Your task to perform on an android device: move an email to a new category in the gmail app Image 0: 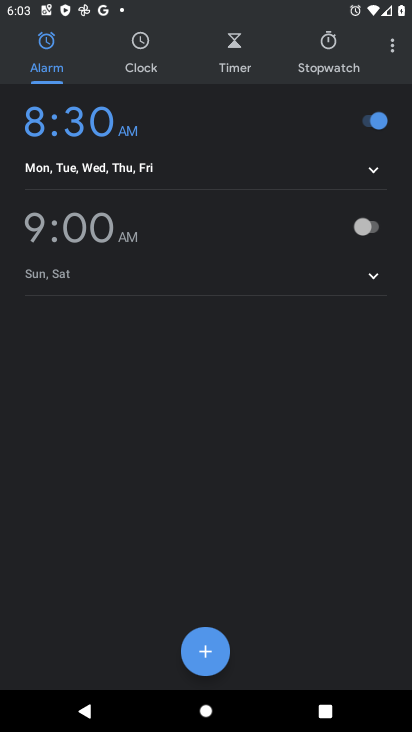
Step 0: press back button
Your task to perform on an android device: move an email to a new category in the gmail app Image 1: 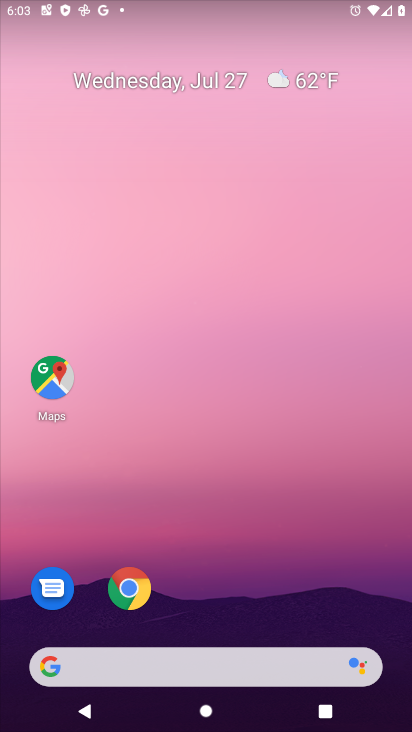
Step 1: drag from (153, 467) to (173, 145)
Your task to perform on an android device: move an email to a new category in the gmail app Image 2: 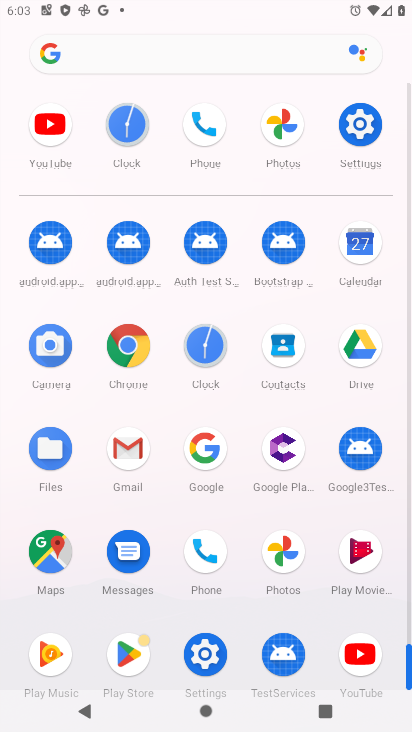
Step 2: click (128, 442)
Your task to perform on an android device: move an email to a new category in the gmail app Image 3: 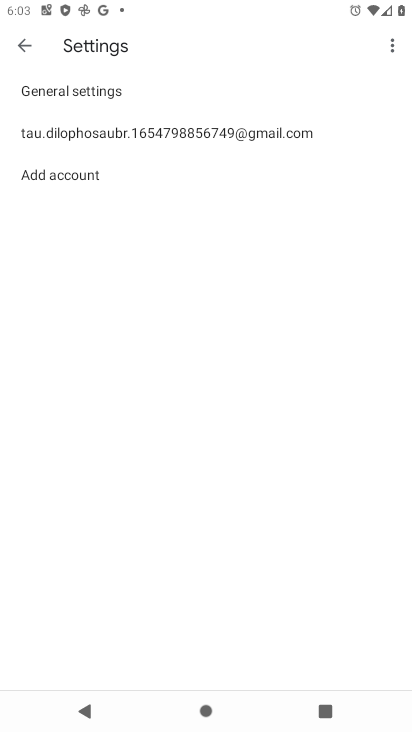
Step 3: click (21, 43)
Your task to perform on an android device: move an email to a new category in the gmail app Image 4: 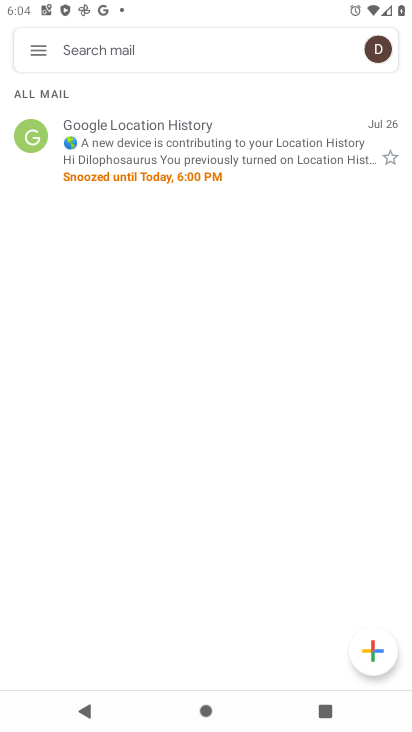
Step 4: click (304, 144)
Your task to perform on an android device: move an email to a new category in the gmail app Image 5: 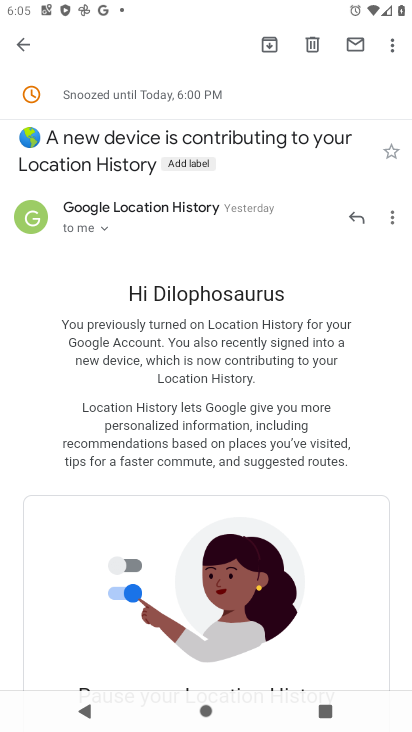
Step 5: click (393, 47)
Your task to perform on an android device: move an email to a new category in the gmail app Image 6: 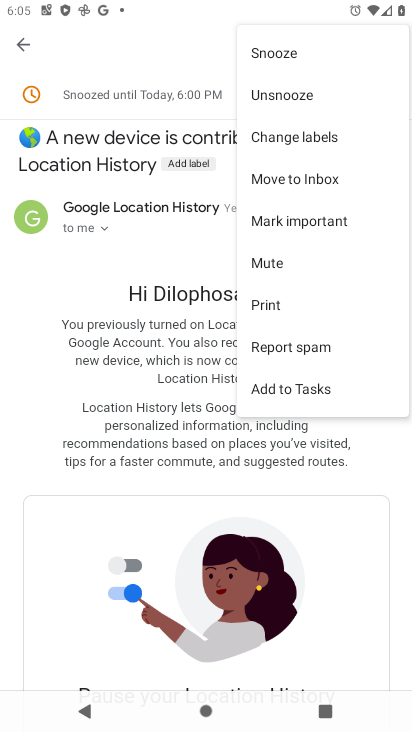
Step 6: click (311, 185)
Your task to perform on an android device: move an email to a new category in the gmail app Image 7: 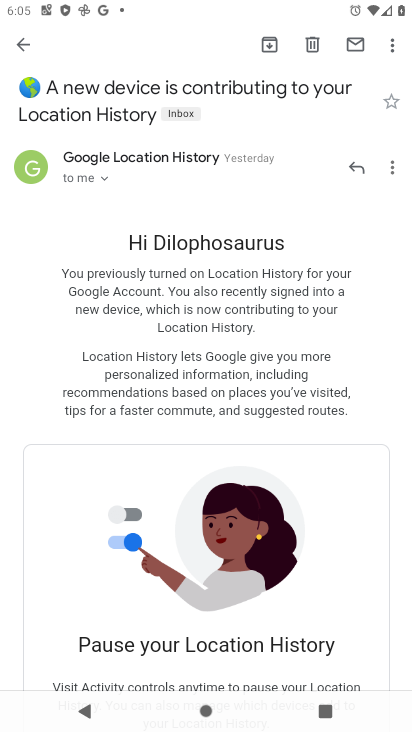
Step 7: task complete